Your task to perform on an android device: Show me productivity apps on the Play Store Image 0: 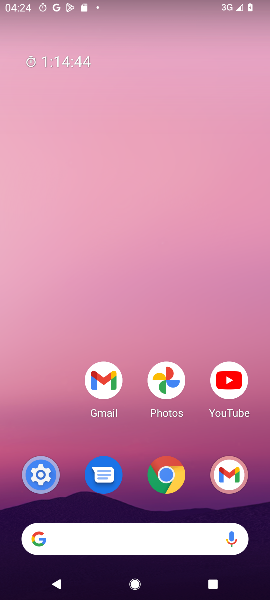
Step 0: press home button
Your task to perform on an android device: Show me productivity apps on the Play Store Image 1: 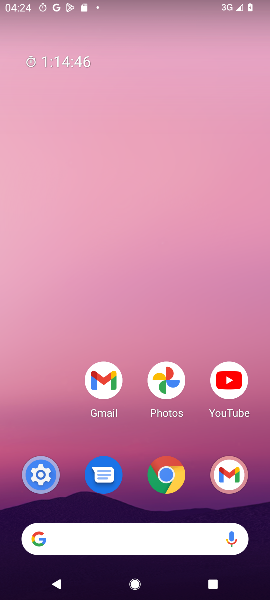
Step 1: drag from (66, 438) to (65, 177)
Your task to perform on an android device: Show me productivity apps on the Play Store Image 2: 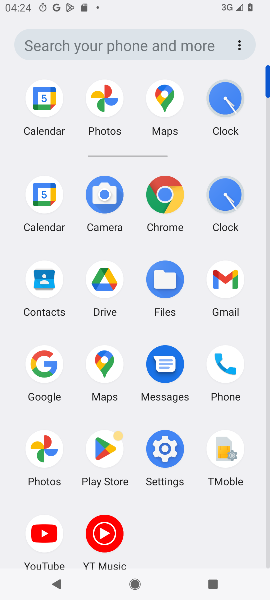
Step 2: click (103, 446)
Your task to perform on an android device: Show me productivity apps on the Play Store Image 3: 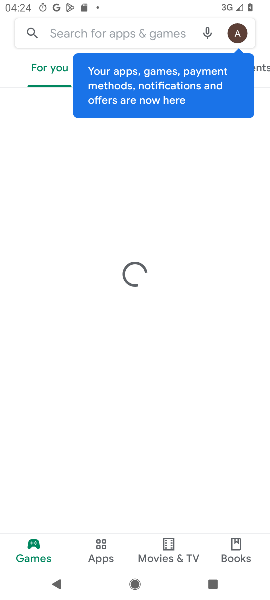
Step 3: click (105, 544)
Your task to perform on an android device: Show me productivity apps on the Play Store Image 4: 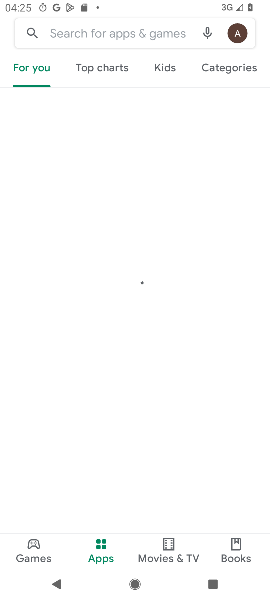
Step 4: task complete